Your task to perform on an android device: delete location history Image 0: 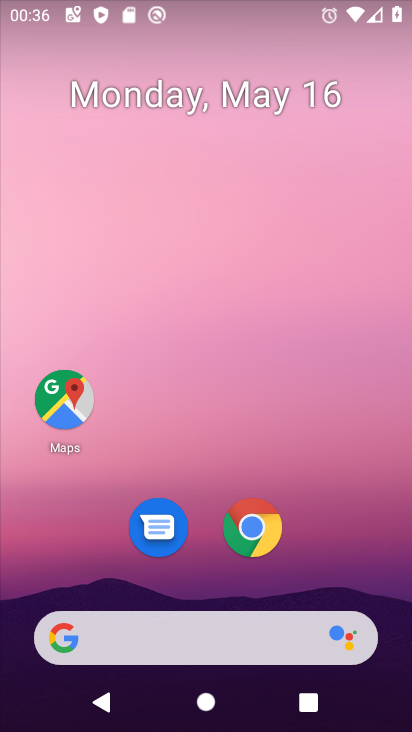
Step 0: drag from (342, 546) to (290, 127)
Your task to perform on an android device: delete location history Image 1: 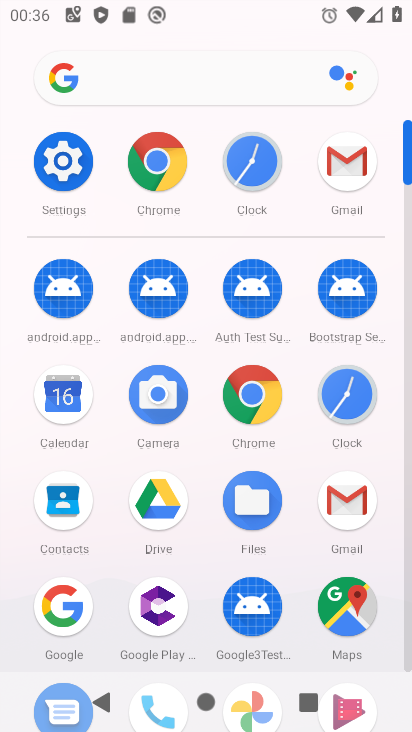
Step 1: click (44, 153)
Your task to perform on an android device: delete location history Image 2: 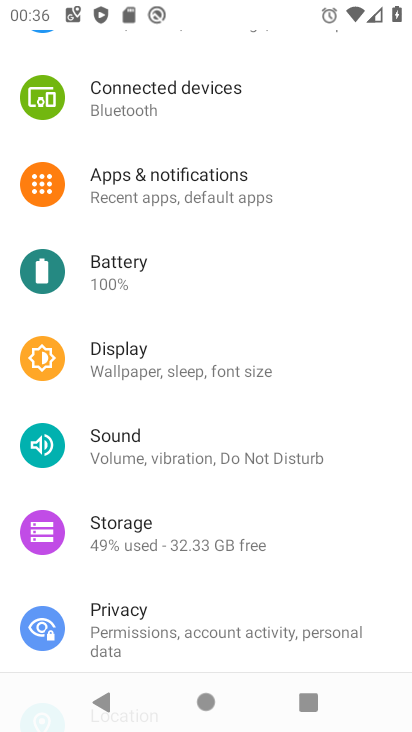
Step 2: drag from (159, 561) to (142, 240)
Your task to perform on an android device: delete location history Image 3: 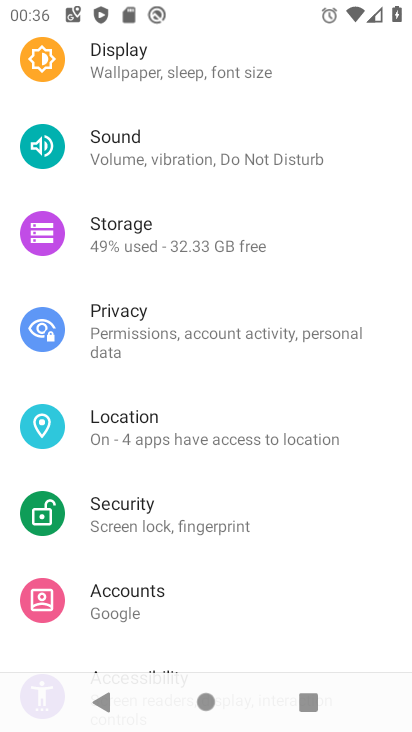
Step 3: click (208, 453)
Your task to perform on an android device: delete location history Image 4: 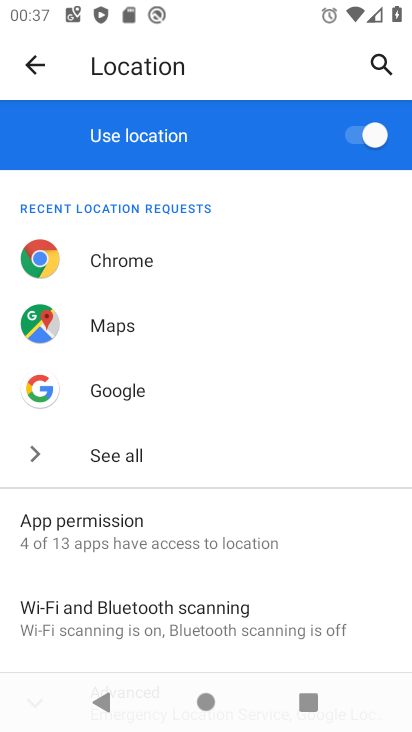
Step 4: drag from (234, 566) to (213, 292)
Your task to perform on an android device: delete location history Image 5: 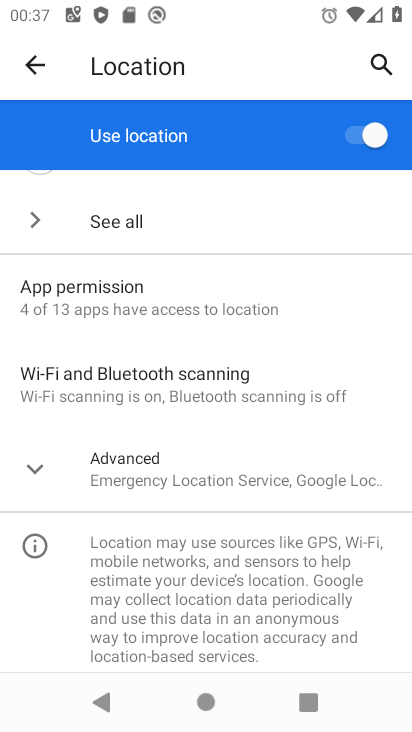
Step 5: click (235, 466)
Your task to perform on an android device: delete location history Image 6: 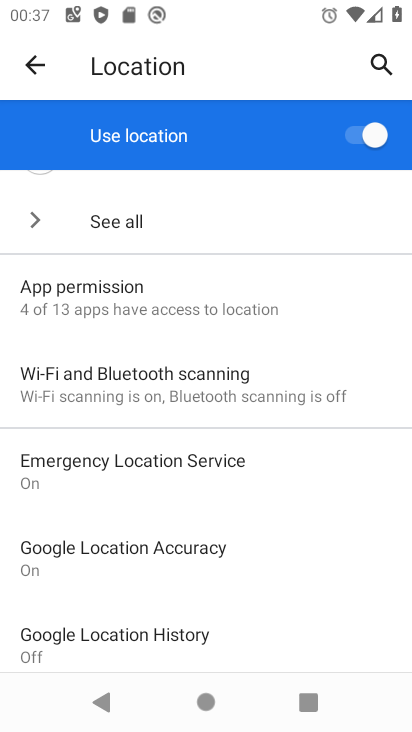
Step 6: click (250, 625)
Your task to perform on an android device: delete location history Image 7: 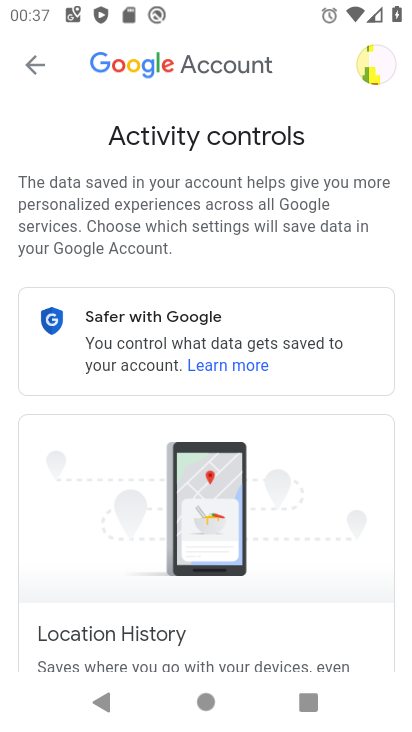
Step 7: drag from (323, 553) to (300, 295)
Your task to perform on an android device: delete location history Image 8: 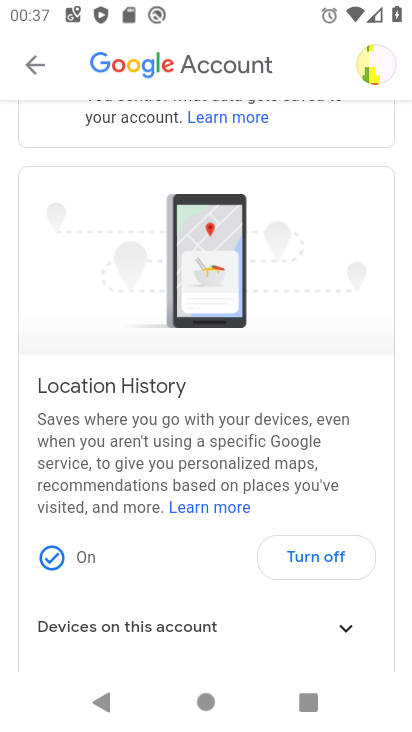
Step 8: drag from (305, 473) to (275, 233)
Your task to perform on an android device: delete location history Image 9: 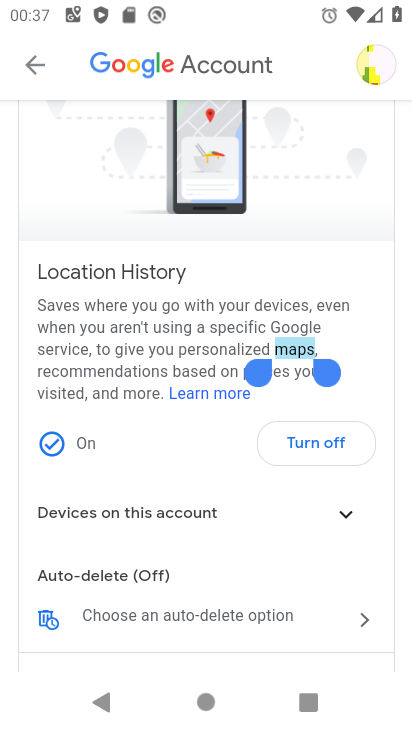
Step 9: click (321, 600)
Your task to perform on an android device: delete location history Image 10: 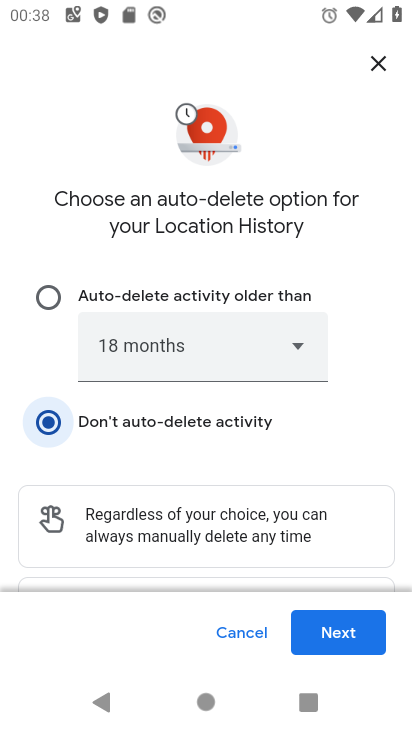
Step 10: click (338, 632)
Your task to perform on an android device: delete location history Image 11: 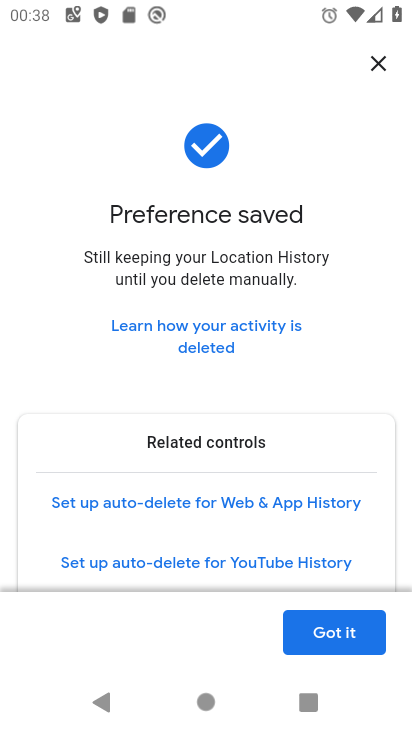
Step 11: click (338, 632)
Your task to perform on an android device: delete location history Image 12: 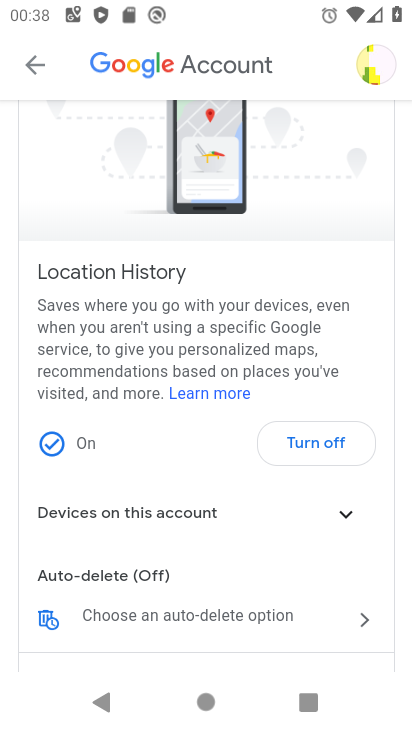
Step 12: click (353, 600)
Your task to perform on an android device: delete location history Image 13: 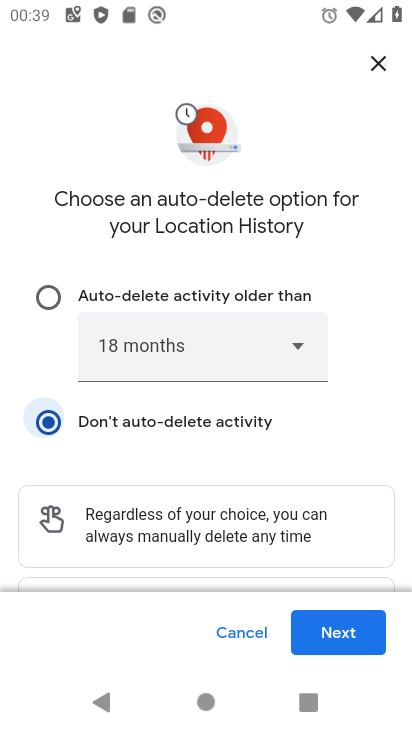
Step 13: click (357, 625)
Your task to perform on an android device: delete location history Image 14: 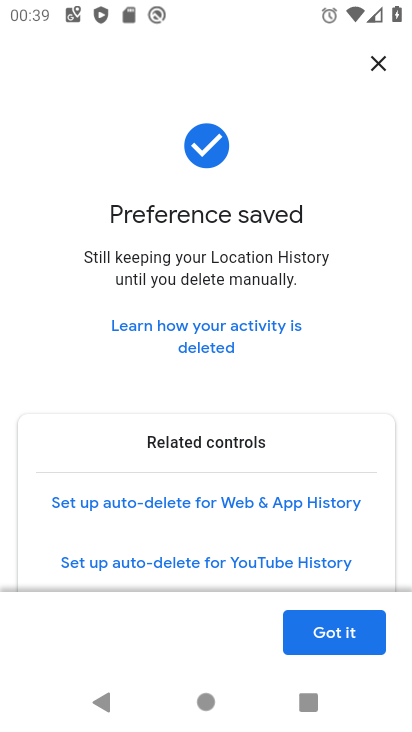
Step 14: click (357, 625)
Your task to perform on an android device: delete location history Image 15: 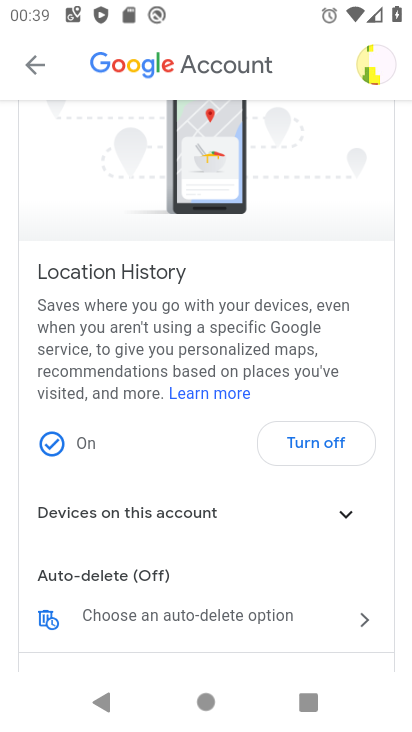
Step 15: task complete